Your task to perform on an android device: see creations saved in the google photos Image 0: 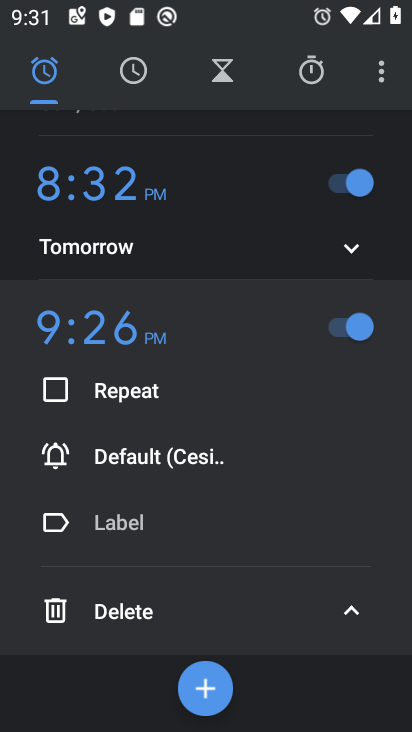
Step 0: press home button
Your task to perform on an android device: see creations saved in the google photos Image 1: 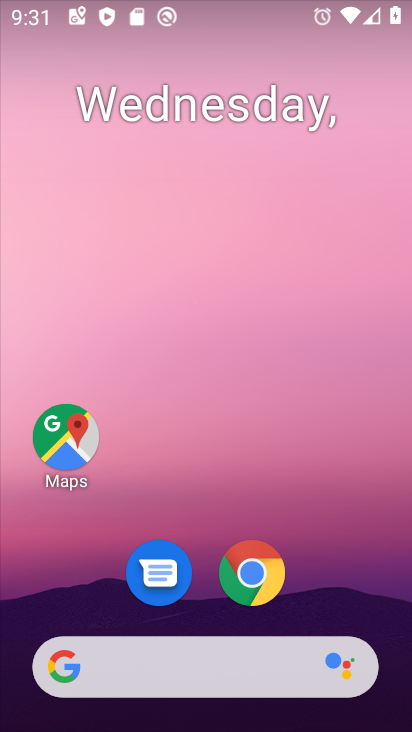
Step 1: drag from (353, 586) to (331, 88)
Your task to perform on an android device: see creations saved in the google photos Image 2: 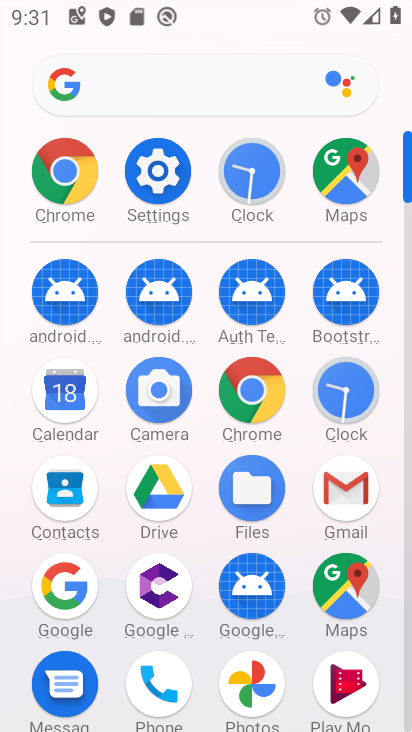
Step 2: click (256, 691)
Your task to perform on an android device: see creations saved in the google photos Image 3: 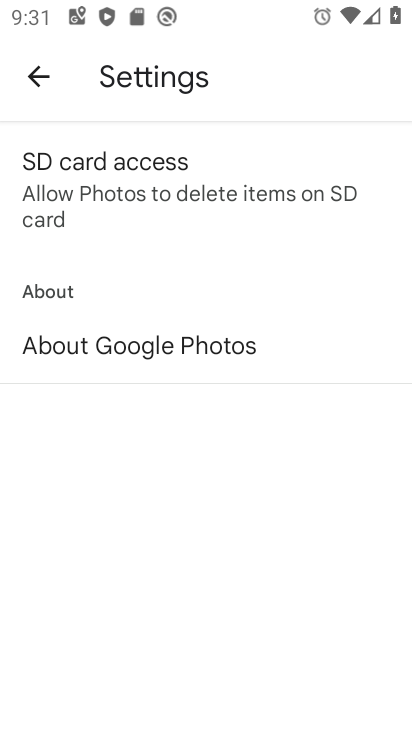
Step 3: click (43, 81)
Your task to perform on an android device: see creations saved in the google photos Image 4: 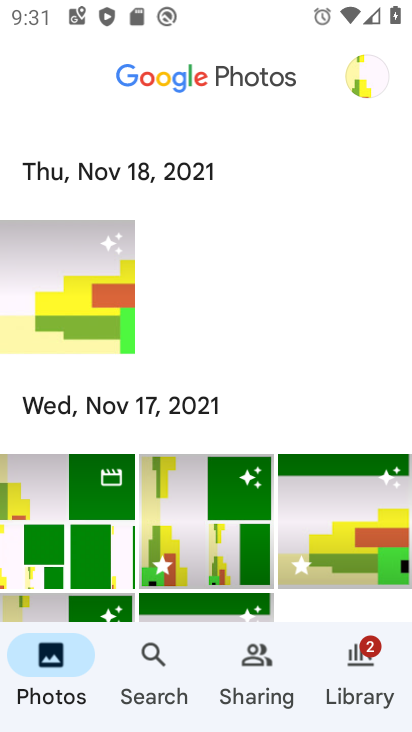
Step 4: click (364, 661)
Your task to perform on an android device: see creations saved in the google photos Image 5: 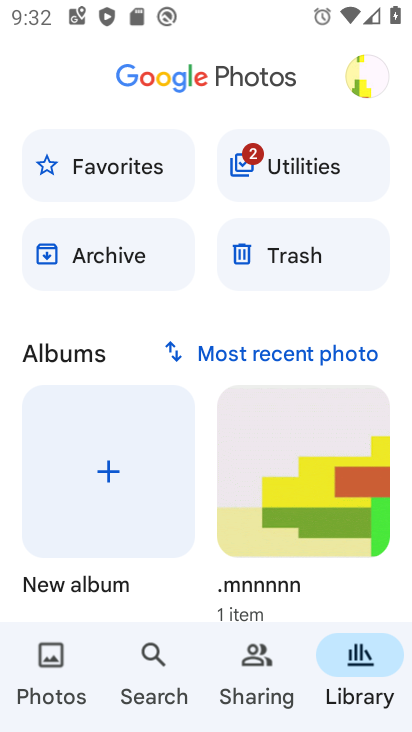
Step 5: task complete